Your task to perform on an android device: check data usage Image 0: 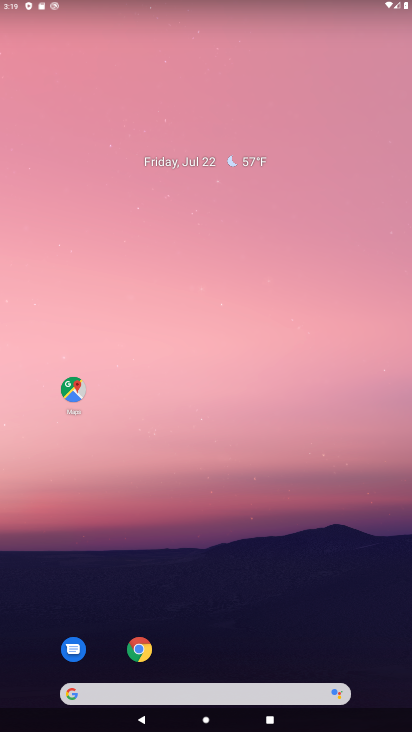
Step 0: drag from (110, 344) to (200, 115)
Your task to perform on an android device: check data usage Image 1: 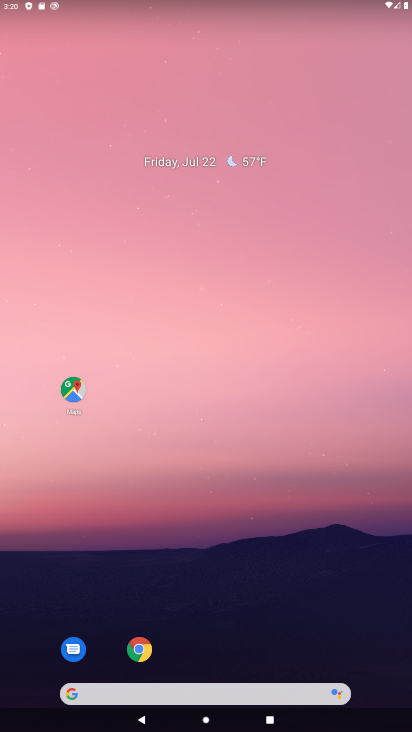
Step 1: drag from (131, 551) to (406, 358)
Your task to perform on an android device: check data usage Image 2: 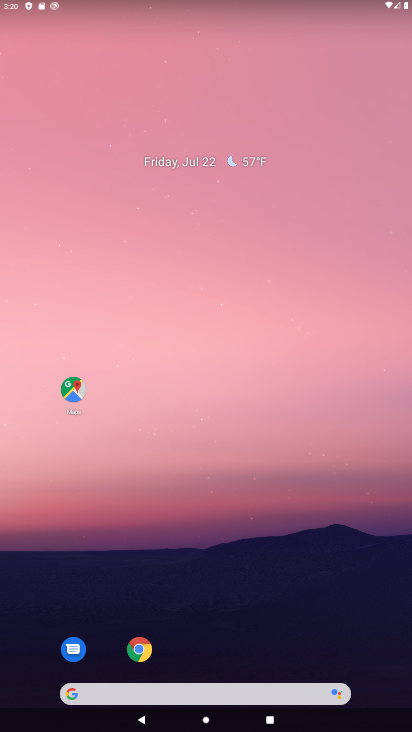
Step 2: drag from (31, 661) to (362, 112)
Your task to perform on an android device: check data usage Image 3: 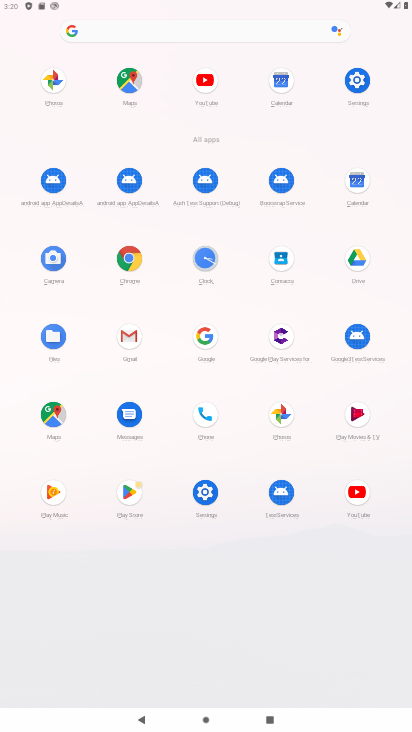
Step 3: click (213, 490)
Your task to perform on an android device: check data usage Image 4: 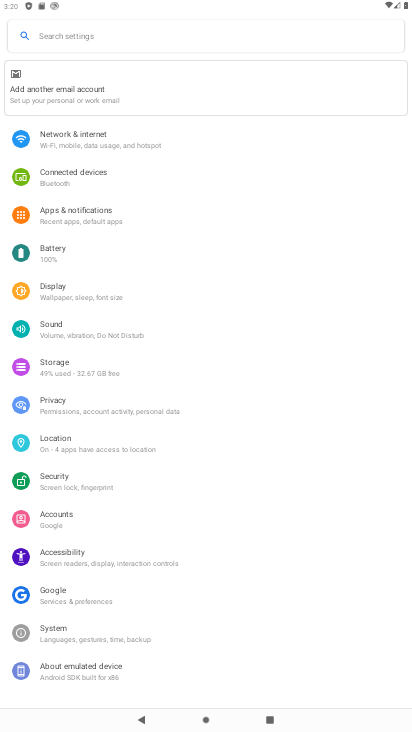
Step 4: click (110, 146)
Your task to perform on an android device: check data usage Image 5: 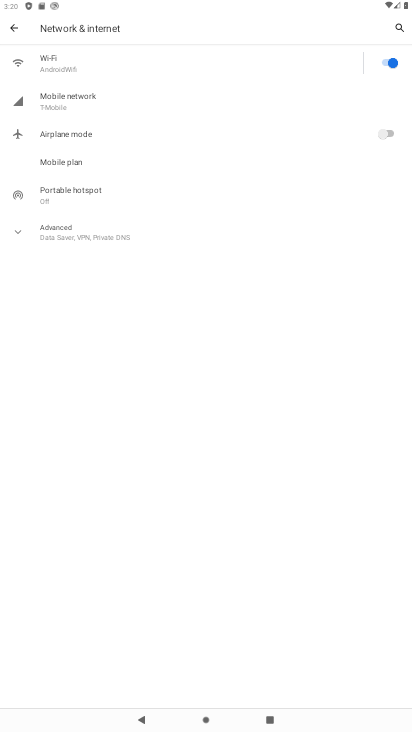
Step 5: click (63, 112)
Your task to perform on an android device: check data usage Image 6: 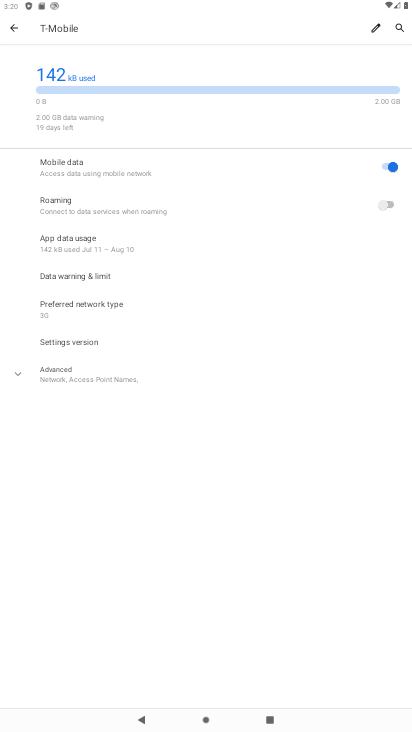
Step 6: task complete